Your task to perform on an android device: show emergency info Image 0: 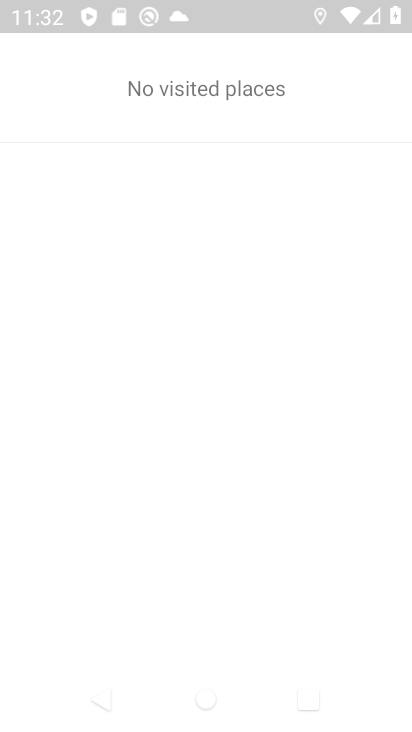
Step 0: press home button
Your task to perform on an android device: show emergency info Image 1: 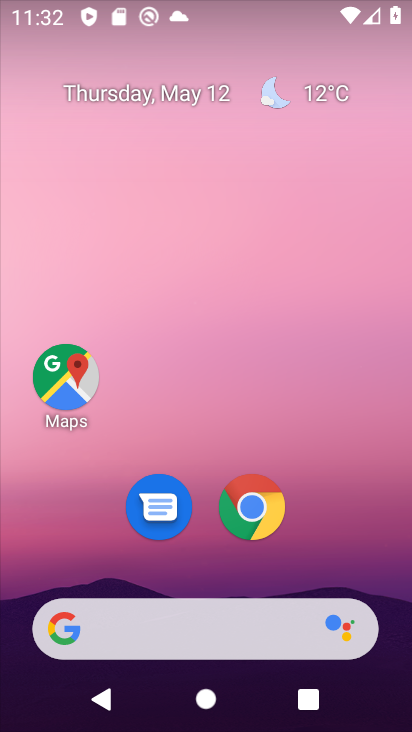
Step 1: drag from (207, 504) to (194, 0)
Your task to perform on an android device: show emergency info Image 2: 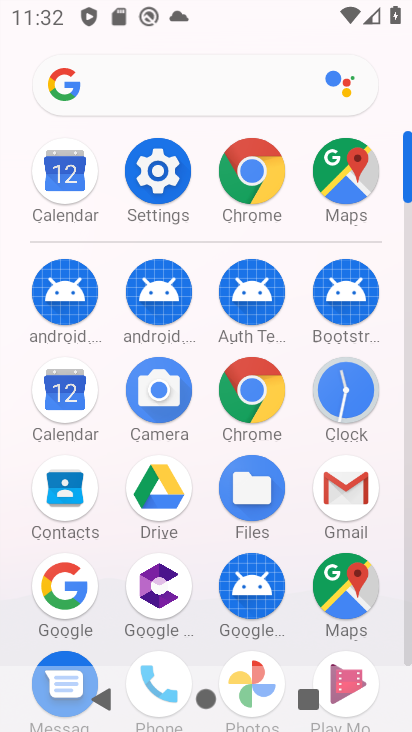
Step 2: click (155, 177)
Your task to perform on an android device: show emergency info Image 3: 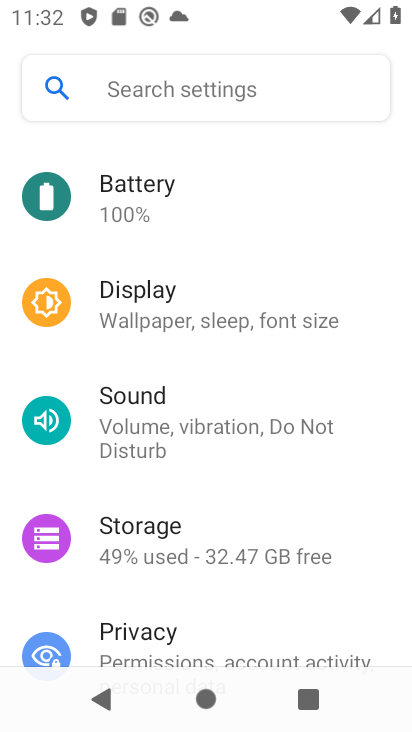
Step 3: drag from (192, 533) to (278, 82)
Your task to perform on an android device: show emergency info Image 4: 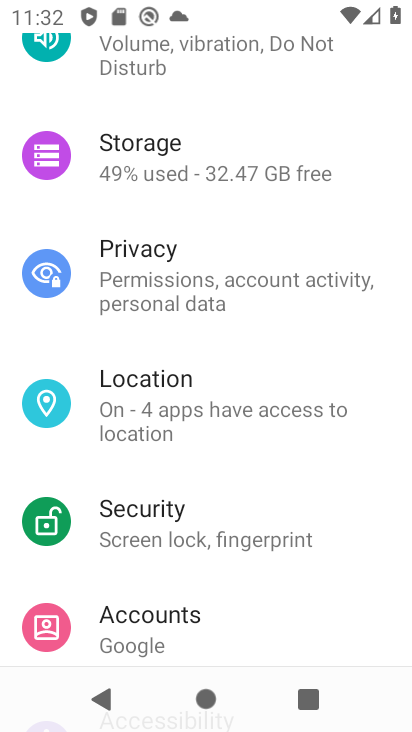
Step 4: drag from (249, 557) to (279, 115)
Your task to perform on an android device: show emergency info Image 5: 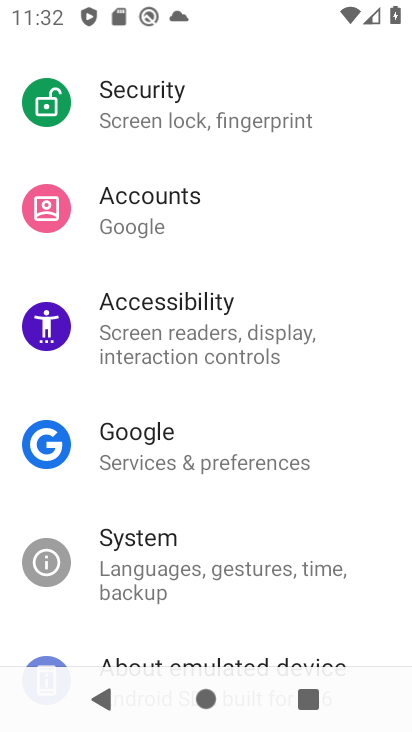
Step 5: drag from (197, 585) to (256, 202)
Your task to perform on an android device: show emergency info Image 6: 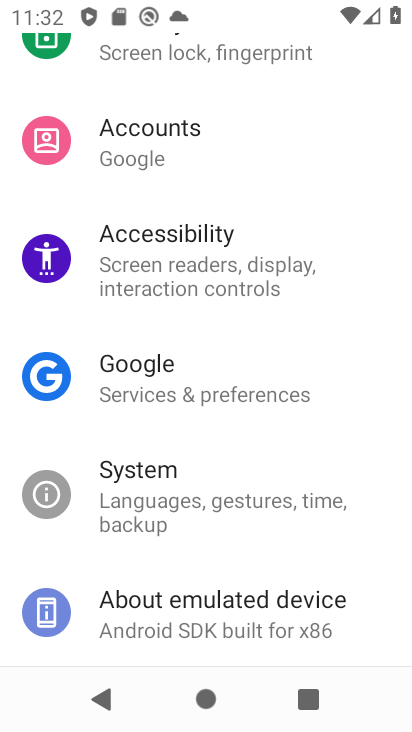
Step 6: click (206, 603)
Your task to perform on an android device: show emergency info Image 7: 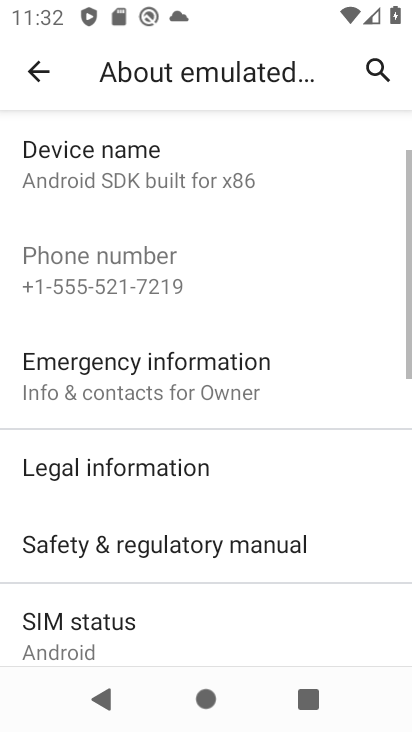
Step 7: drag from (178, 542) to (207, 255)
Your task to perform on an android device: show emergency info Image 8: 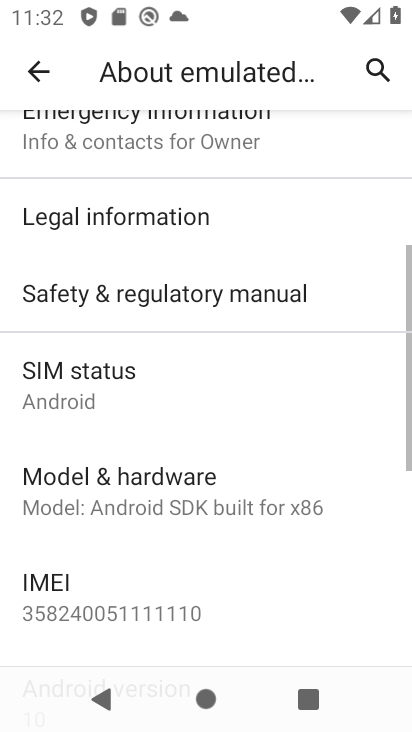
Step 8: drag from (151, 547) to (194, 124)
Your task to perform on an android device: show emergency info Image 9: 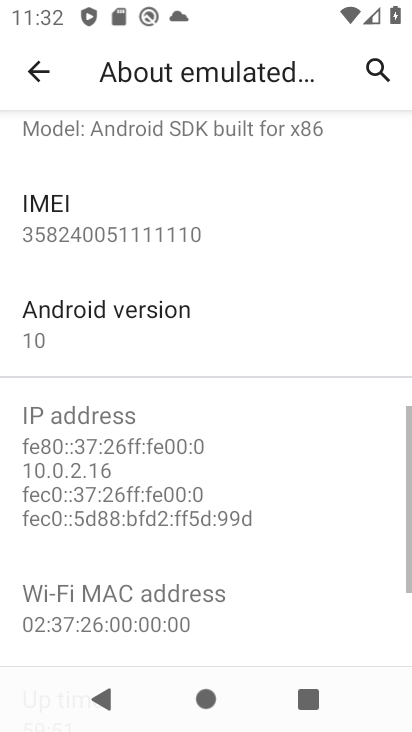
Step 9: drag from (147, 257) to (147, 663)
Your task to perform on an android device: show emergency info Image 10: 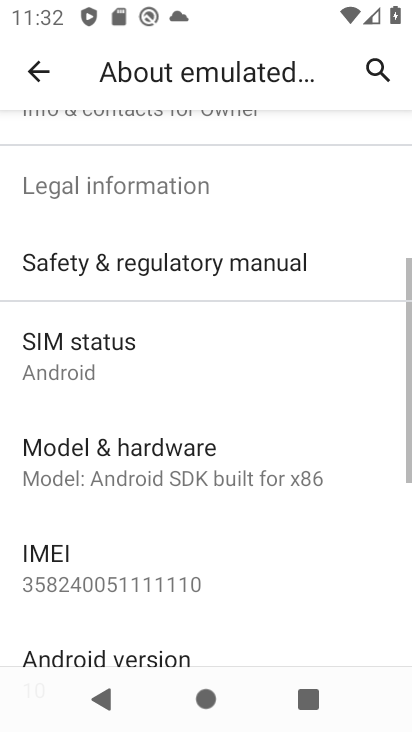
Step 10: drag from (208, 324) to (182, 683)
Your task to perform on an android device: show emergency info Image 11: 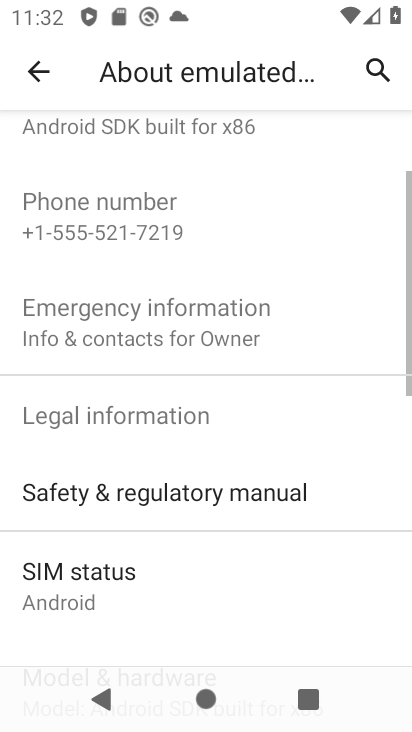
Step 11: click (200, 334)
Your task to perform on an android device: show emergency info Image 12: 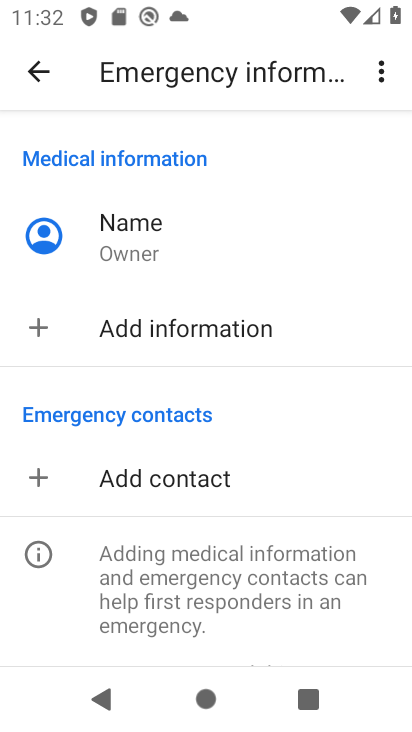
Step 12: task complete